Your task to perform on an android device: toggle wifi Image 0: 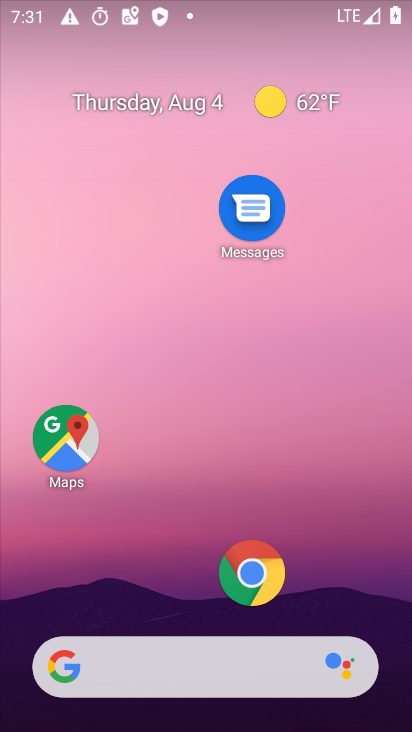
Step 0: press home button
Your task to perform on an android device: toggle wifi Image 1: 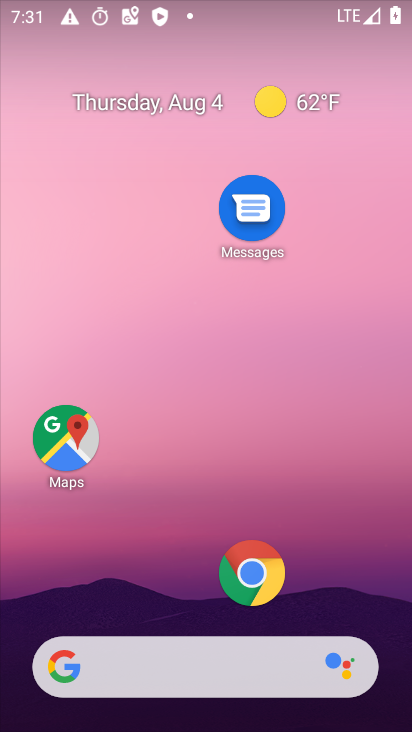
Step 1: drag from (218, 9) to (259, 592)
Your task to perform on an android device: toggle wifi Image 2: 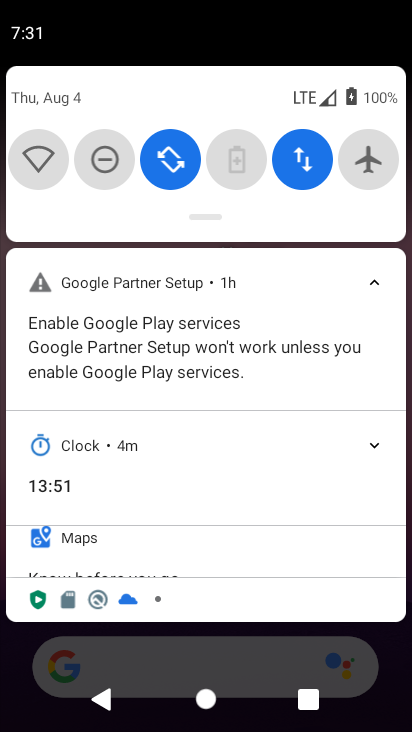
Step 2: click (31, 156)
Your task to perform on an android device: toggle wifi Image 3: 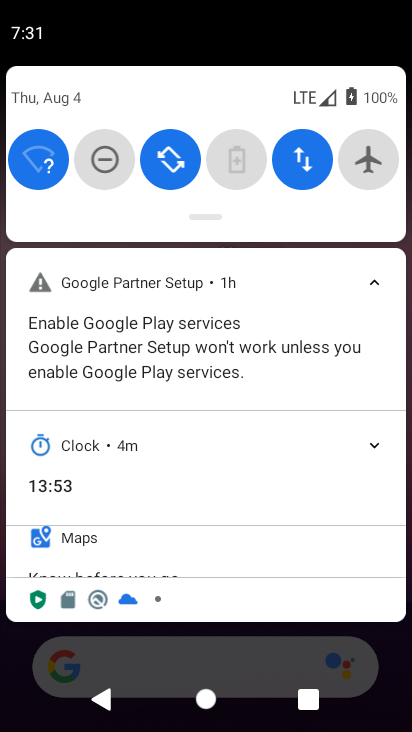
Step 3: task complete